Your task to perform on an android device: Open calendar and show me the fourth week of next month Image 0: 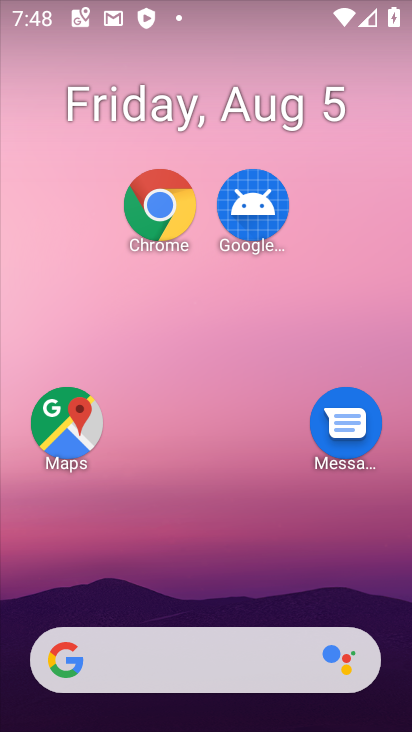
Step 0: drag from (249, 592) to (221, 46)
Your task to perform on an android device: Open calendar and show me the fourth week of next month Image 1: 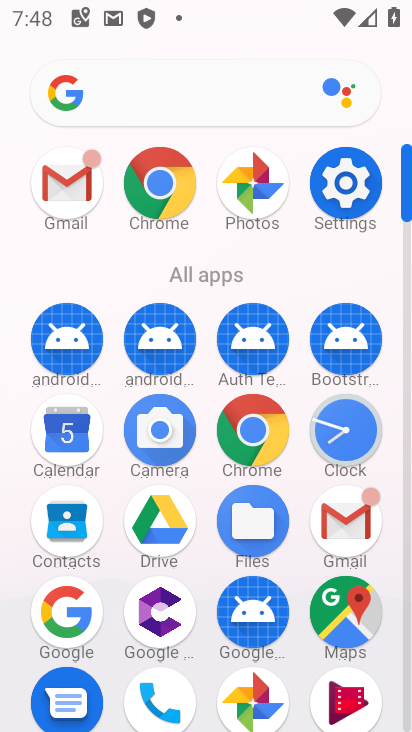
Step 1: click (79, 424)
Your task to perform on an android device: Open calendar and show me the fourth week of next month Image 2: 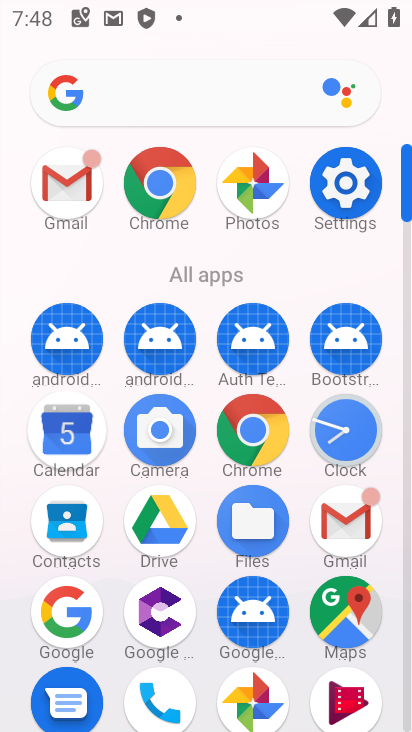
Step 2: click (79, 424)
Your task to perform on an android device: Open calendar and show me the fourth week of next month Image 3: 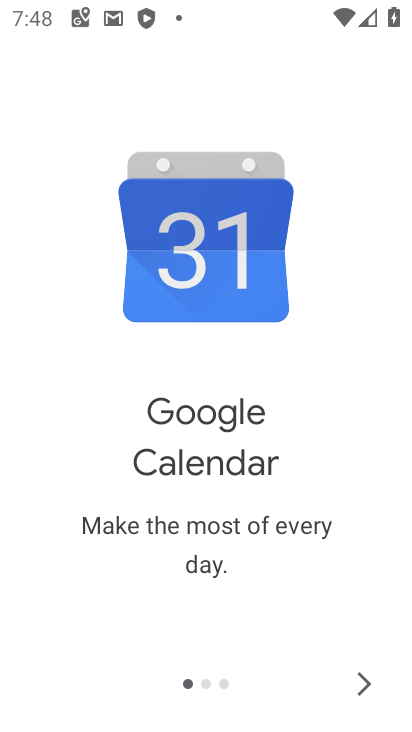
Step 3: click (358, 678)
Your task to perform on an android device: Open calendar and show me the fourth week of next month Image 4: 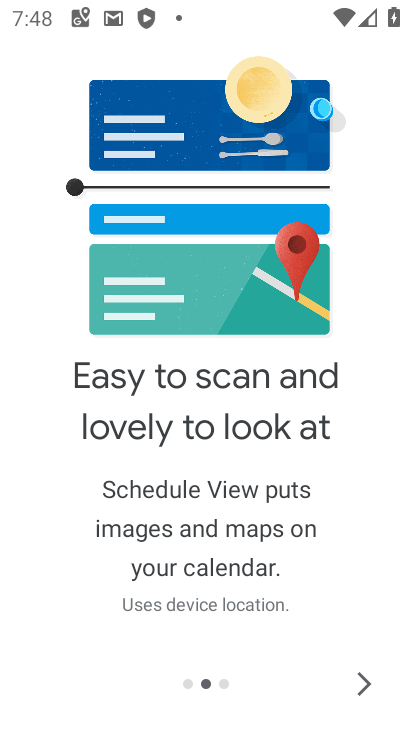
Step 4: click (358, 678)
Your task to perform on an android device: Open calendar and show me the fourth week of next month Image 5: 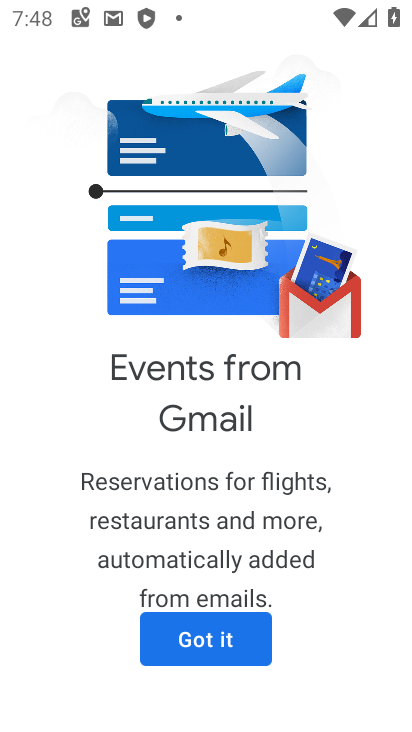
Step 5: click (218, 619)
Your task to perform on an android device: Open calendar and show me the fourth week of next month Image 6: 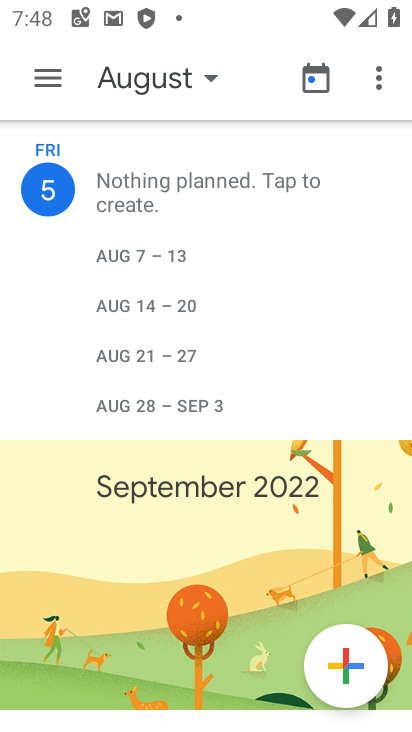
Step 6: click (315, 95)
Your task to perform on an android device: Open calendar and show me the fourth week of next month Image 7: 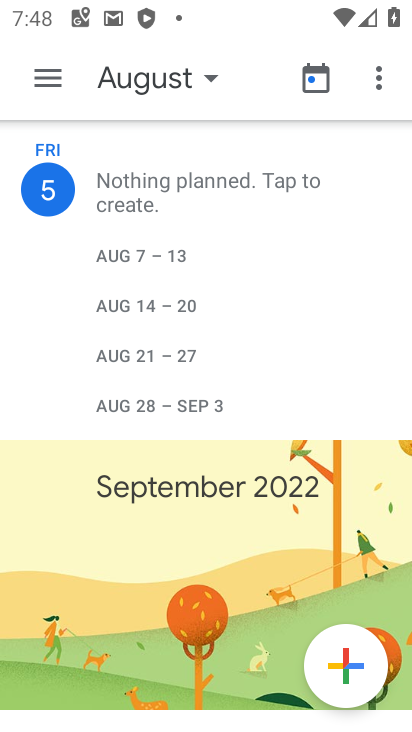
Step 7: click (316, 80)
Your task to perform on an android device: Open calendar and show me the fourth week of next month Image 8: 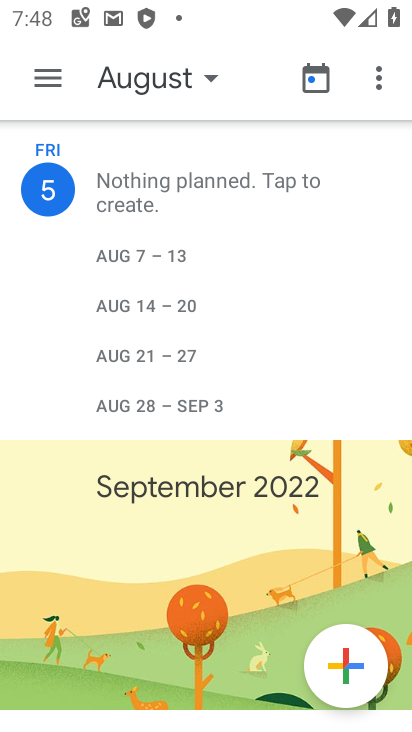
Step 8: click (59, 81)
Your task to perform on an android device: Open calendar and show me the fourth week of next month Image 9: 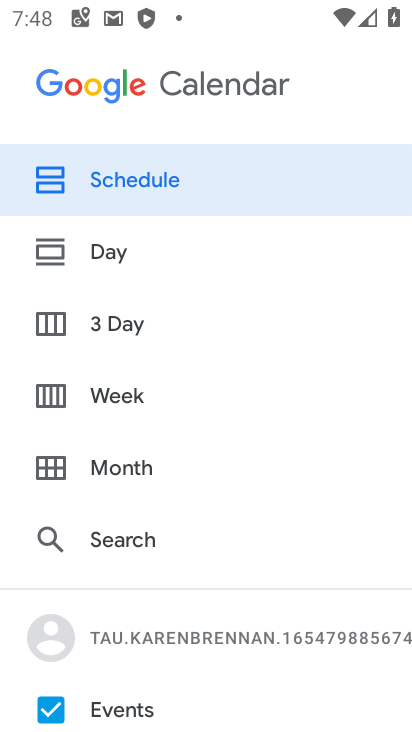
Step 9: click (78, 376)
Your task to perform on an android device: Open calendar and show me the fourth week of next month Image 10: 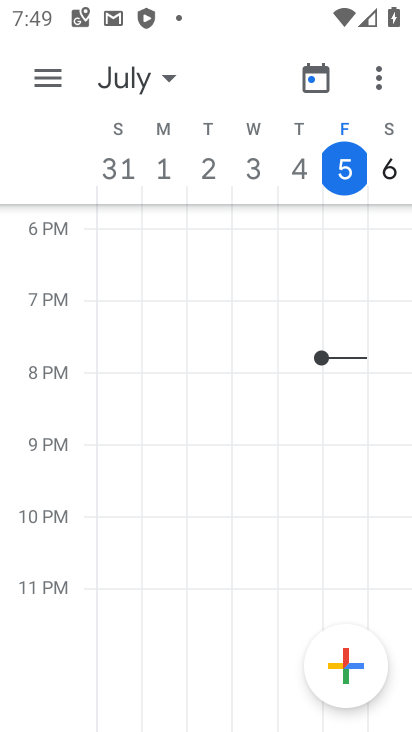
Step 10: task complete